Your task to perform on an android device: open app "Clock" (install if not already installed) Image 0: 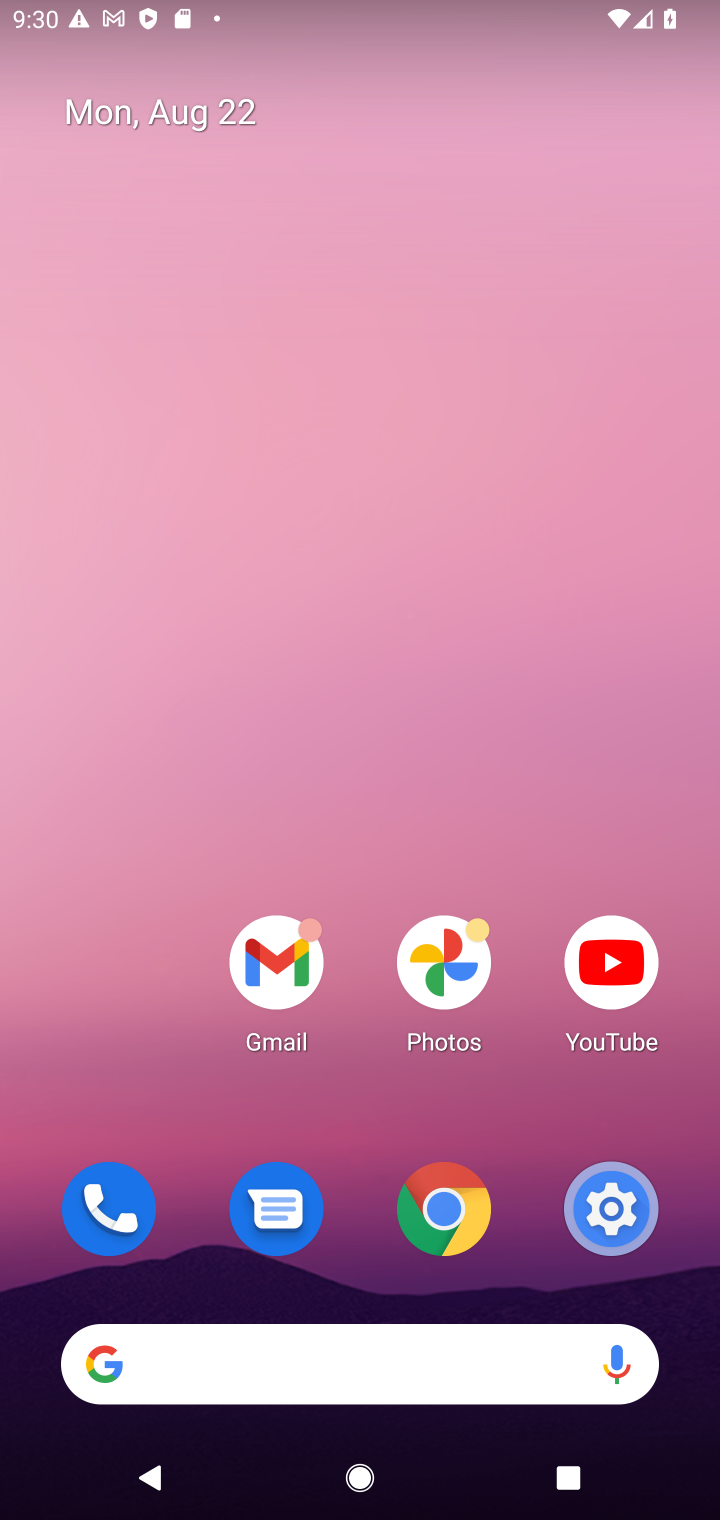
Step 0: drag from (372, 776) to (382, 364)
Your task to perform on an android device: open app "Clock" (install if not already installed) Image 1: 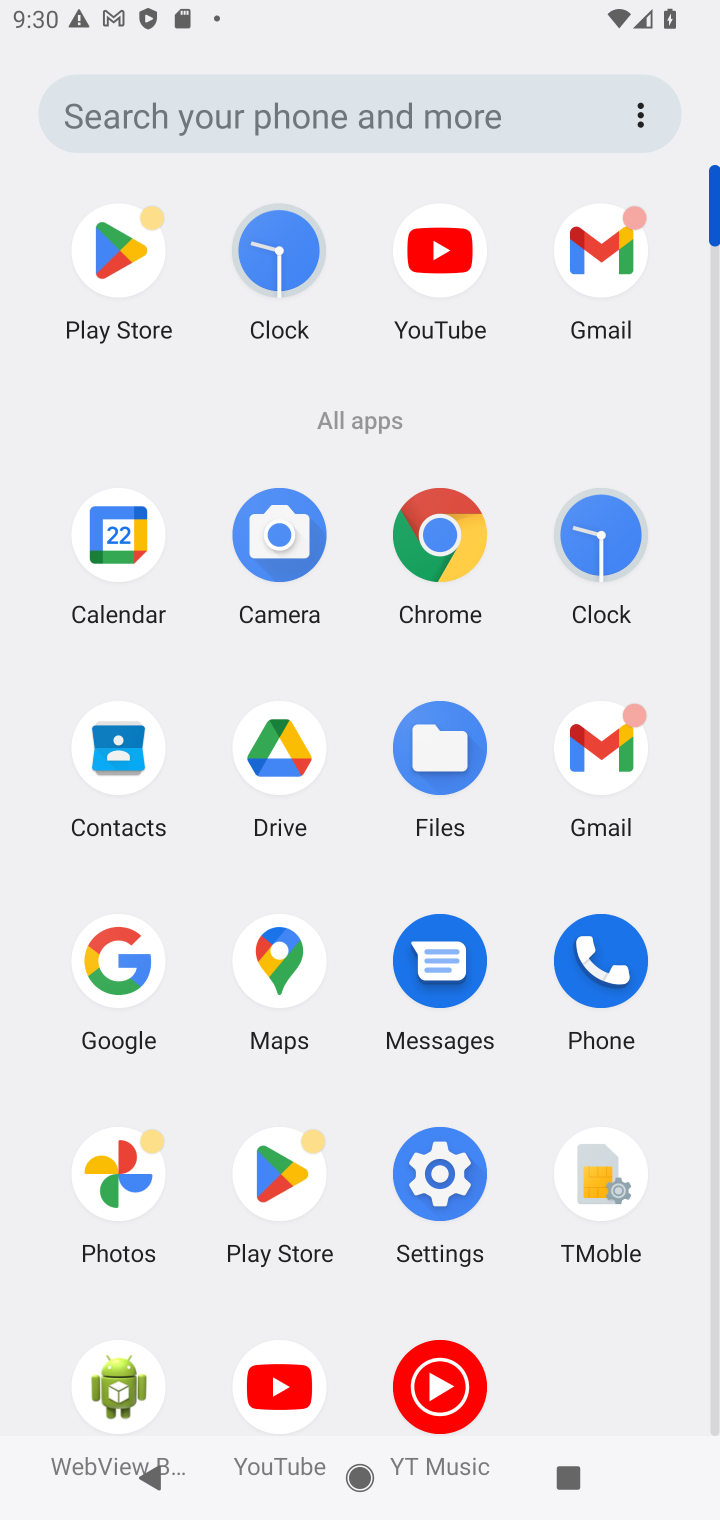
Step 1: click (616, 561)
Your task to perform on an android device: open app "Clock" (install if not already installed) Image 2: 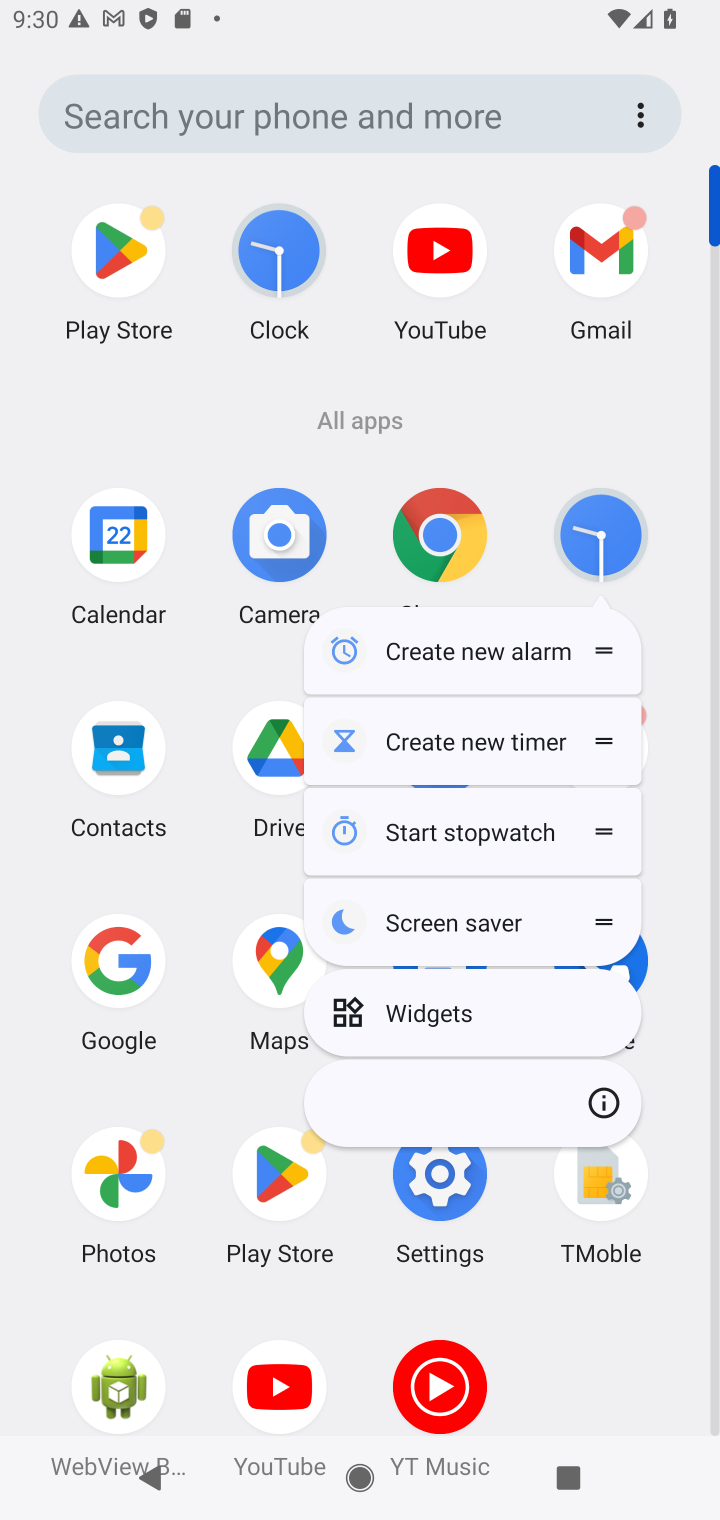
Step 2: click (592, 535)
Your task to perform on an android device: open app "Clock" (install if not already installed) Image 3: 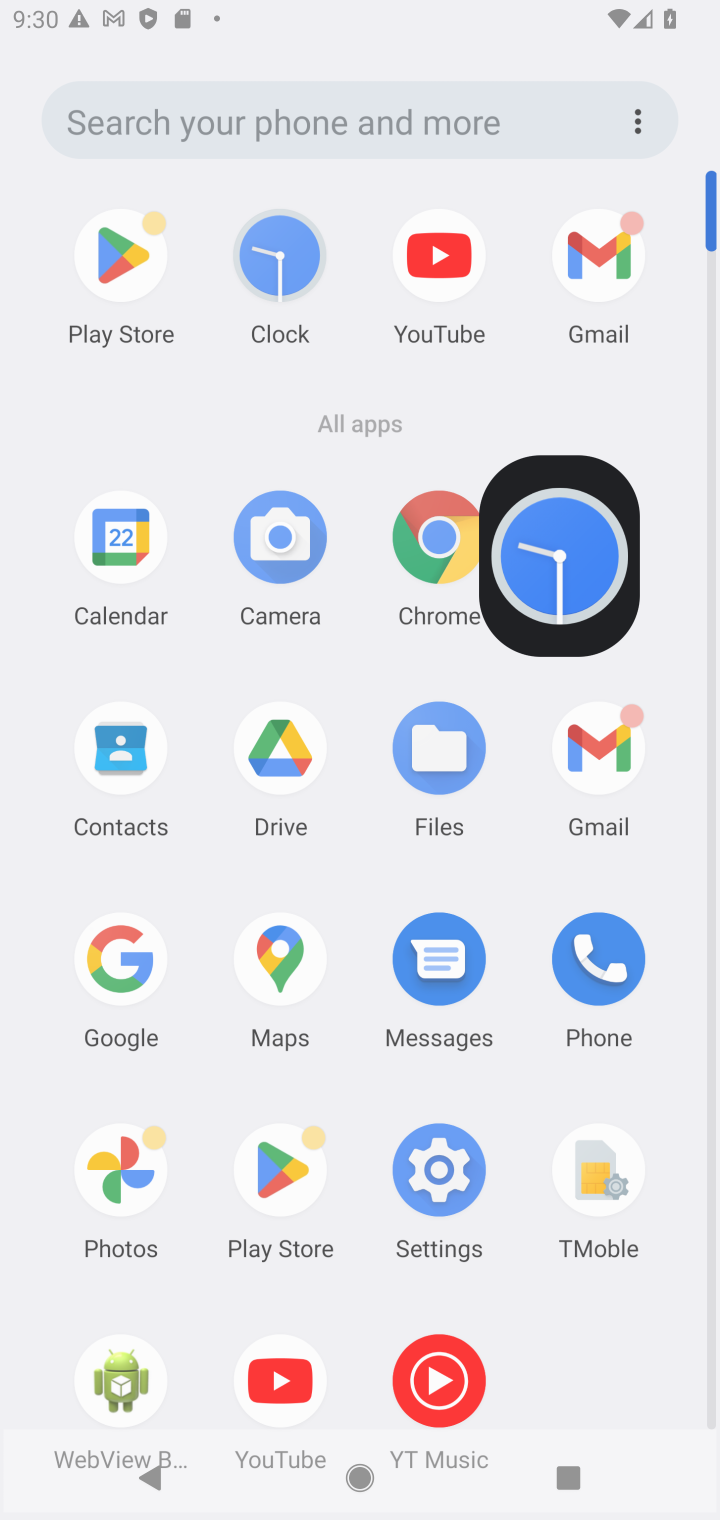
Step 3: click (594, 551)
Your task to perform on an android device: open app "Clock" (install if not already installed) Image 4: 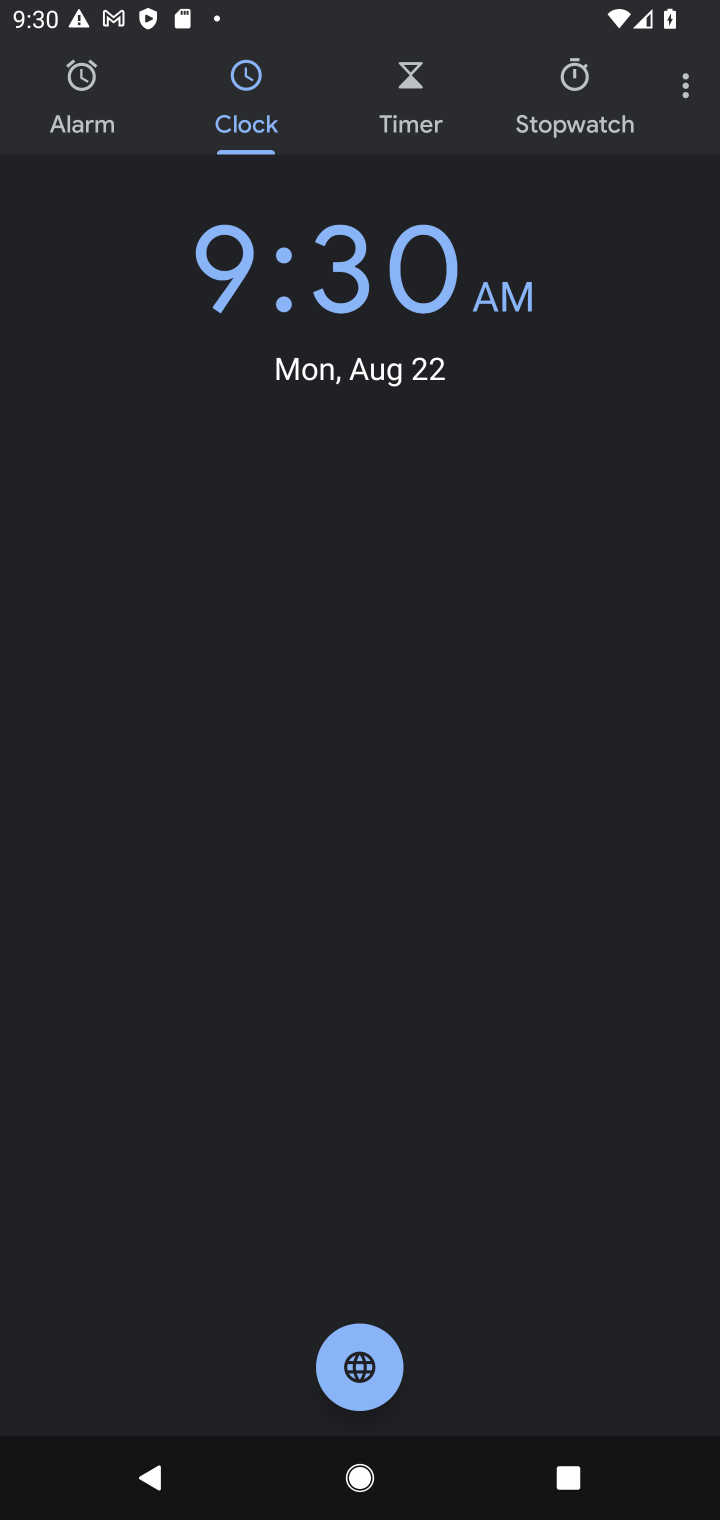
Step 4: task complete